Your task to perform on an android device: open app "Adobe Express: Graphic Design" (install if not already installed) Image 0: 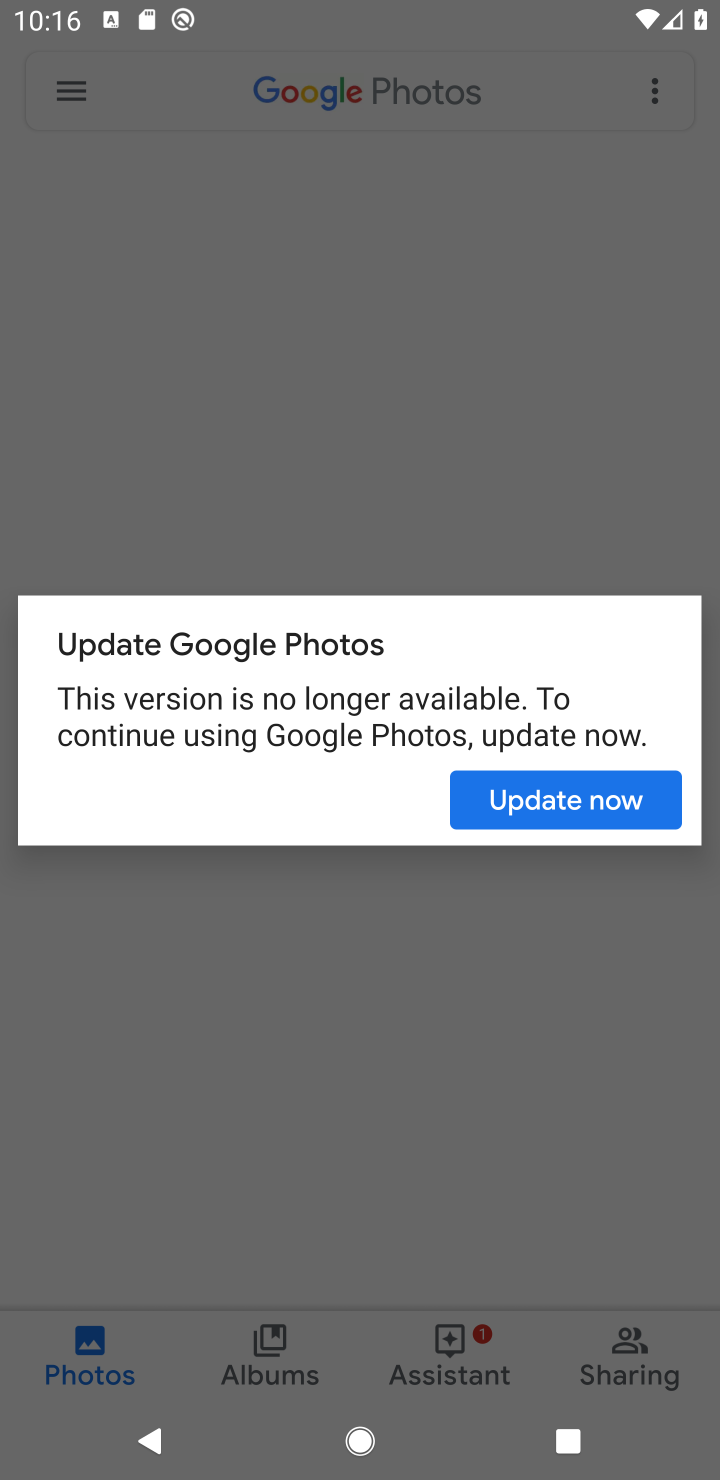
Step 0: press back button
Your task to perform on an android device: open app "Adobe Express: Graphic Design" (install if not already installed) Image 1: 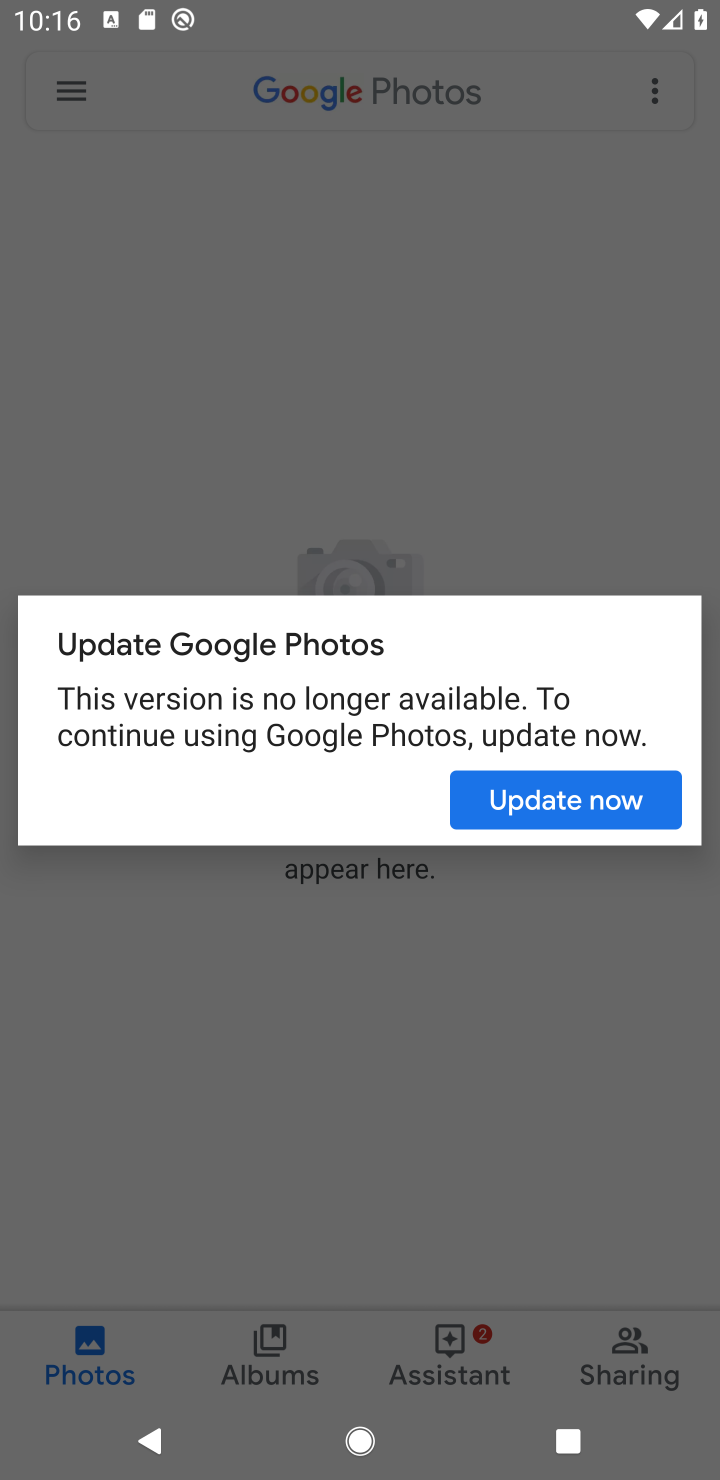
Step 1: press back button
Your task to perform on an android device: open app "Adobe Express: Graphic Design" (install if not already installed) Image 2: 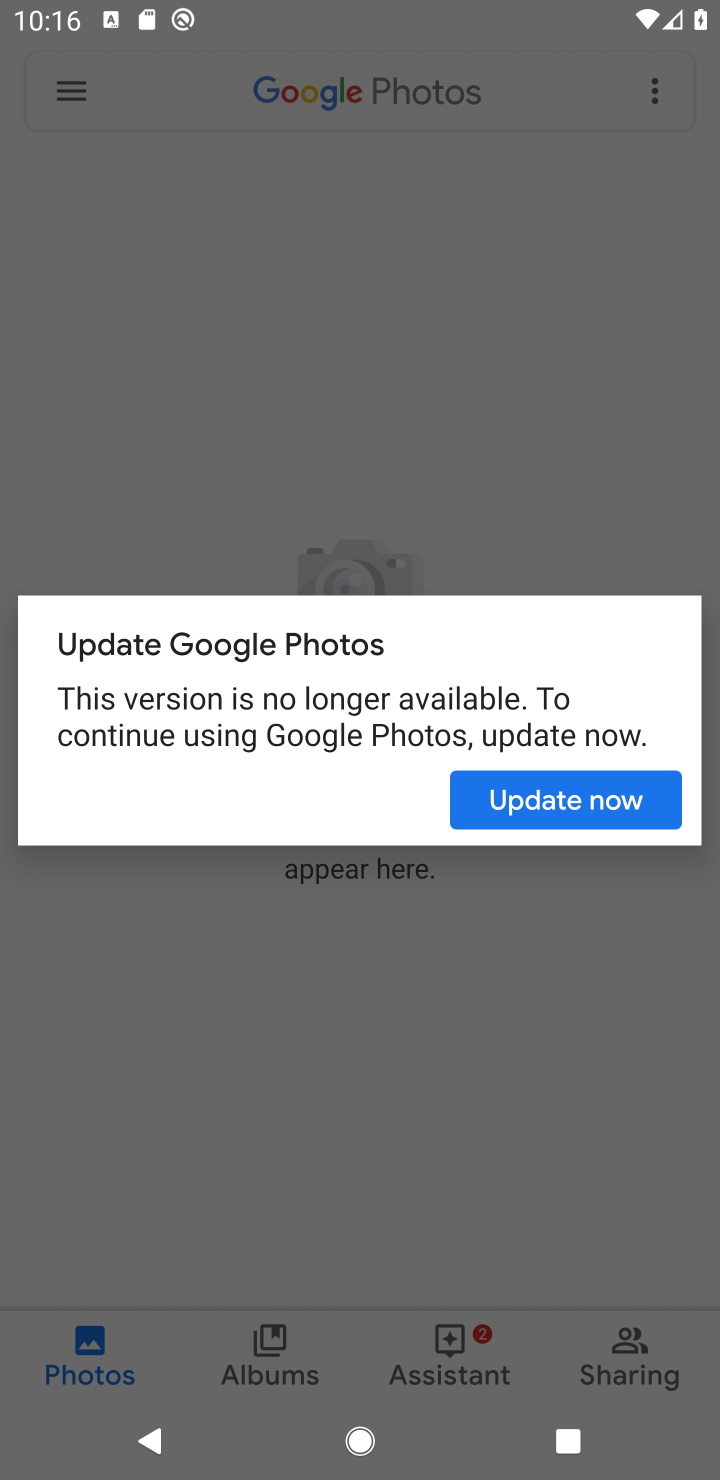
Step 2: press home button
Your task to perform on an android device: open app "Adobe Express: Graphic Design" (install if not already installed) Image 3: 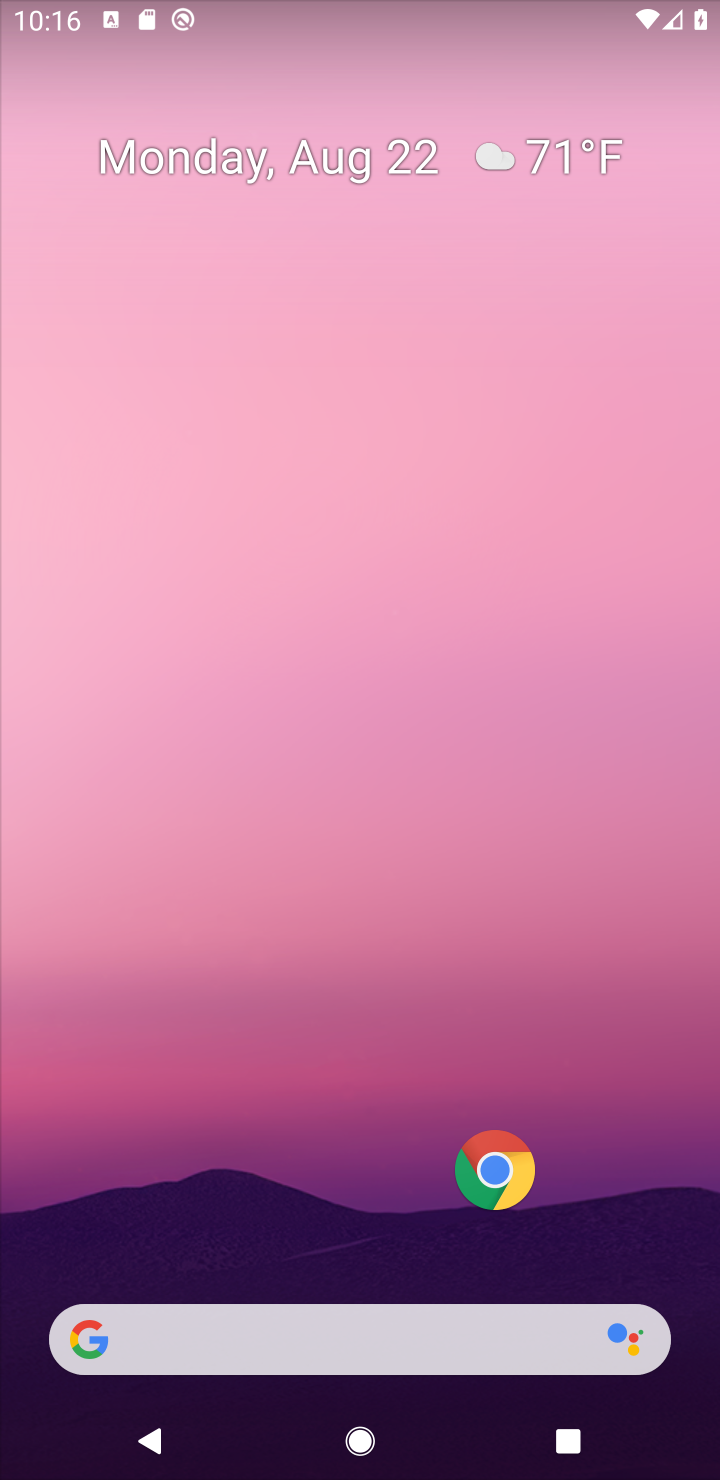
Step 3: drag from (375, 801) to (474, 25)
Your task to perform on an android device: open app "Adobe Express: Graphic Design" (install if not already installed) Image 4: 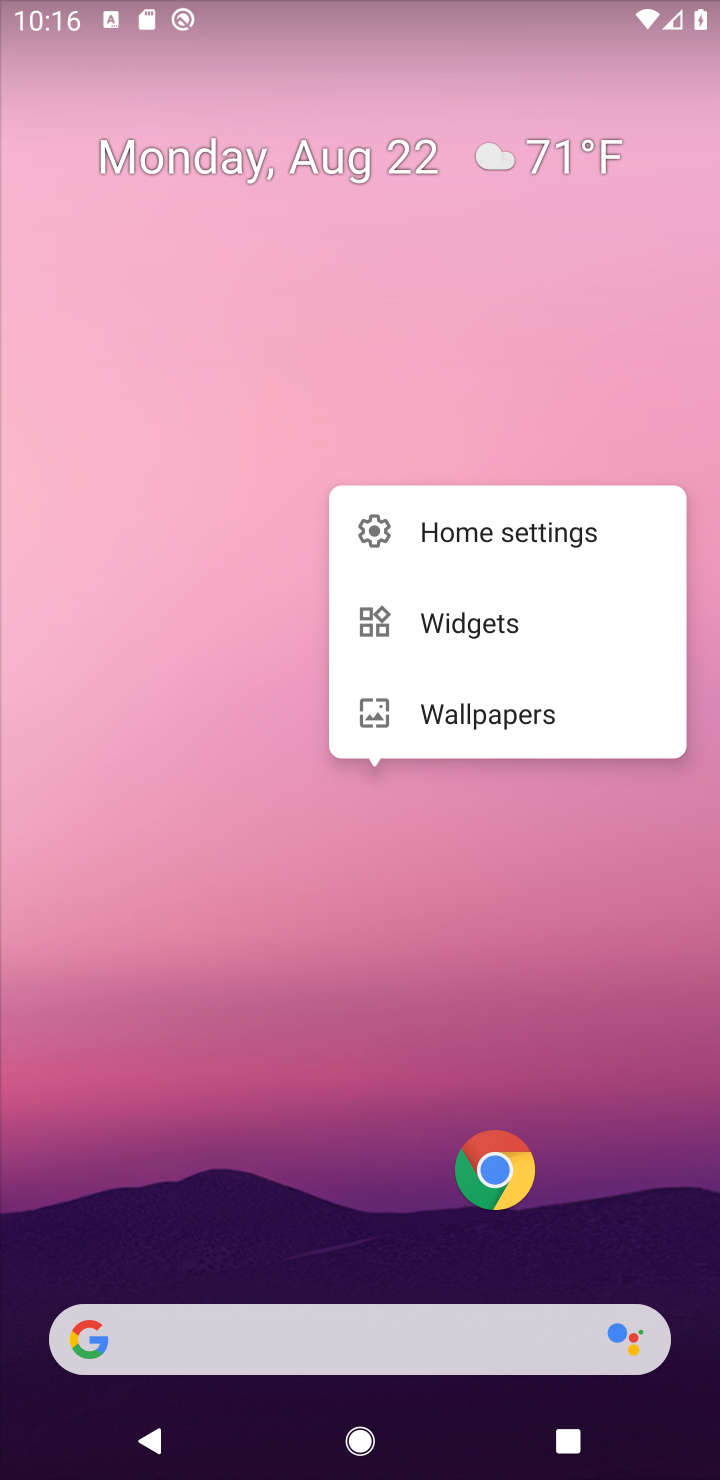
Step 4: click (217, 1167)
Your task to perform on an android device: open app "Adobe Express: Graphic Design" (install if not already installed) Image 5: 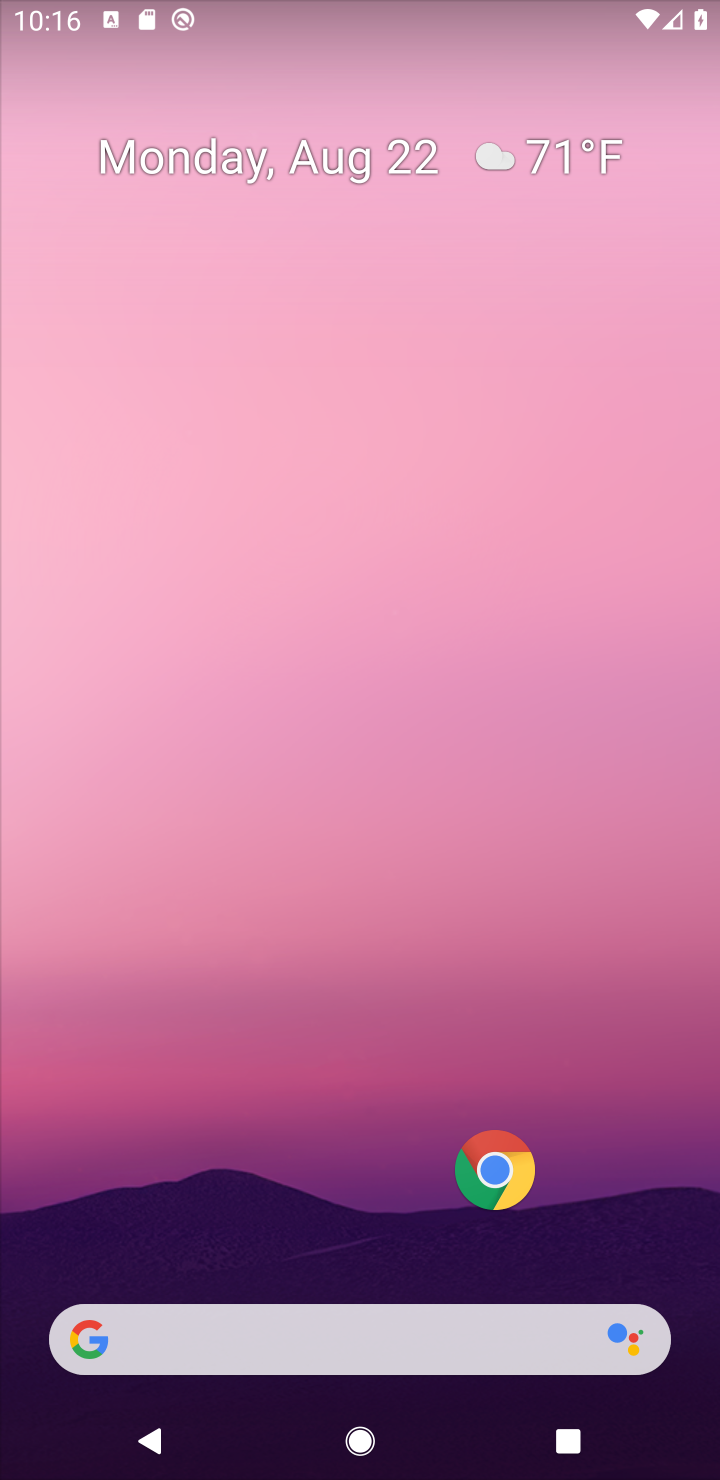
Step 5: drag from (238, 1229) to (481, 2)
Your task to perform on an android device: open app "Adobe Express: Graphic Design" (install if not already installed) Image 6: 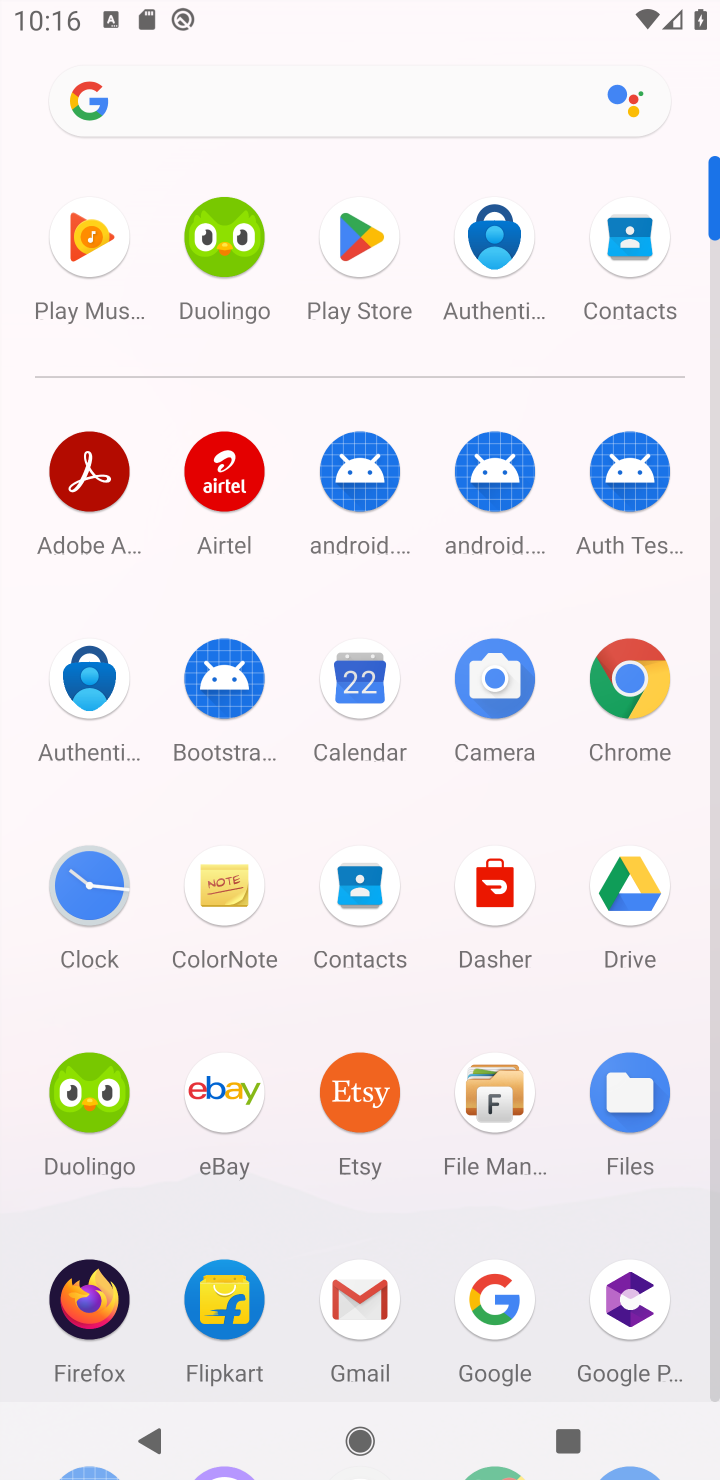
Step 6: click (354, 237)
Your task to perform on an android device: open app "Adobe Express: Graphic Design" (install if not already installed) Image 7: 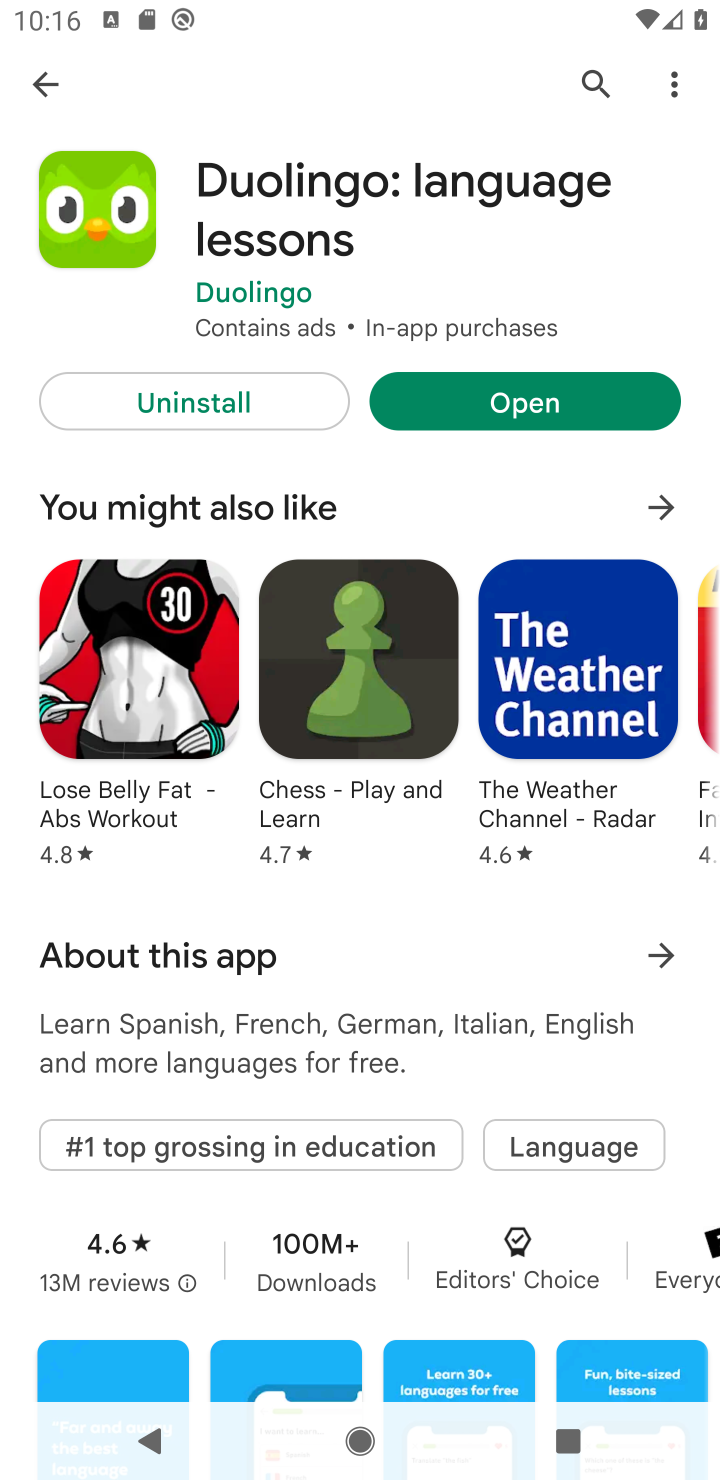
Step 7: click (589, 81)
Your task to perform on an android device: open app "Adobe Express: Graphic Design" (install if not already installed) Image 8: 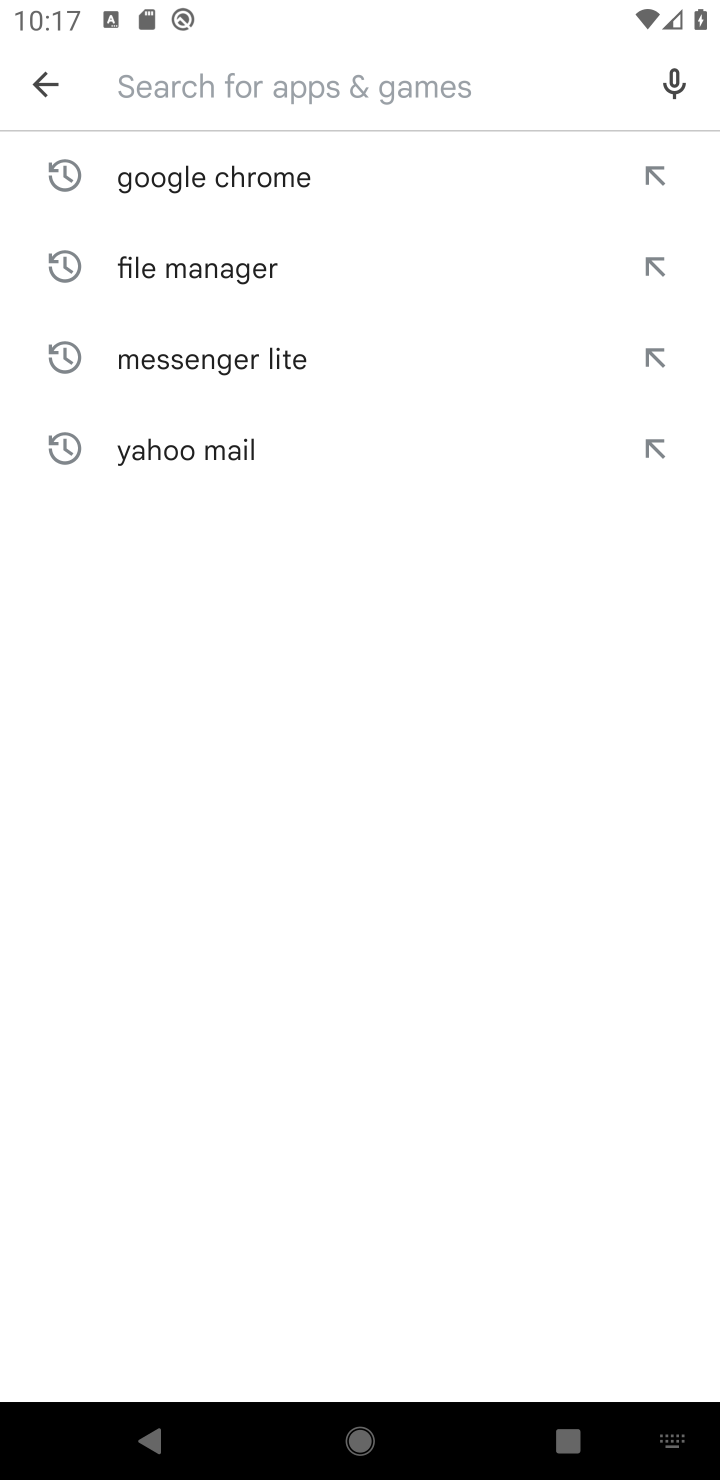
Step 8: click (305, 101)
Your task to perform on an android device: open app "Adobe Express: Graphic Design" (install if not already installed) Image 9: 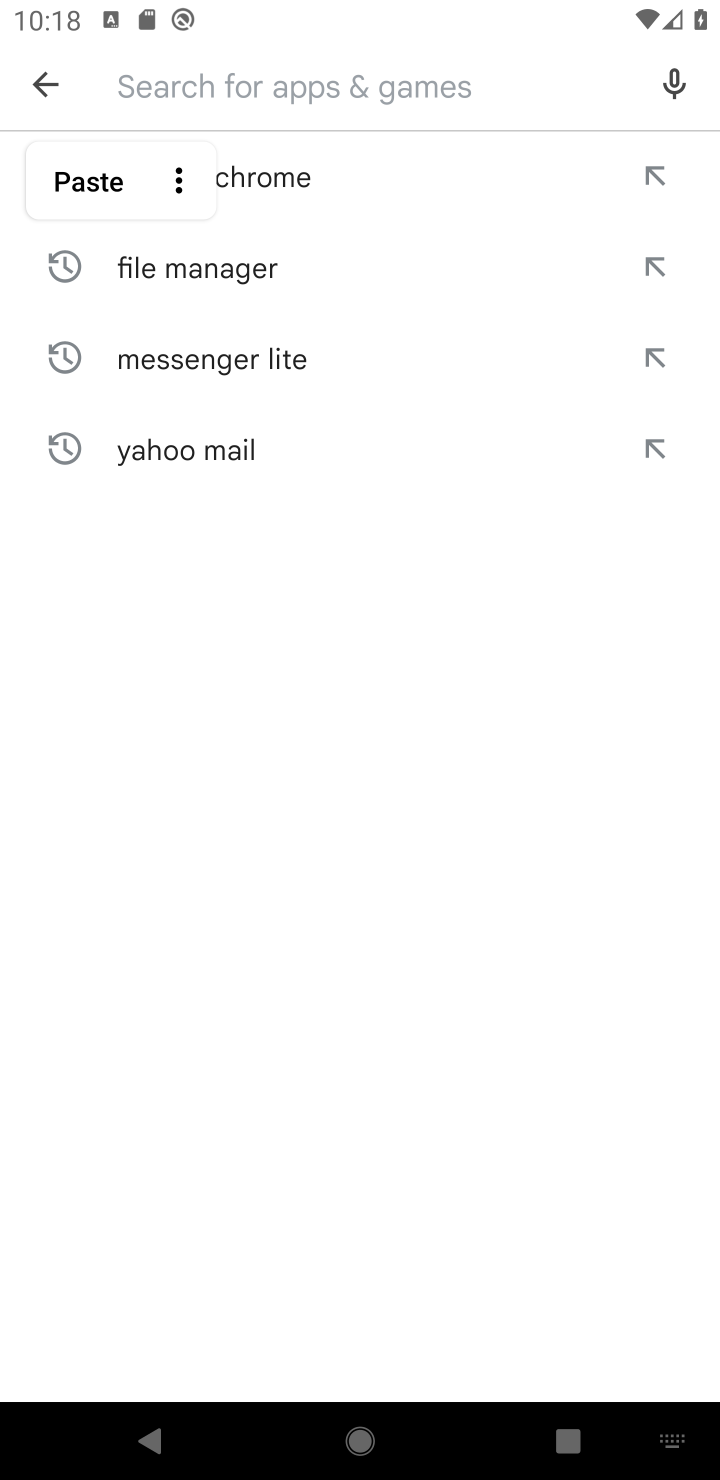
Step 9: click (222, 81)
Your task to perform on an android device: open app "Adobe Express: Graphic Design" (install if not already installed) Image 10: 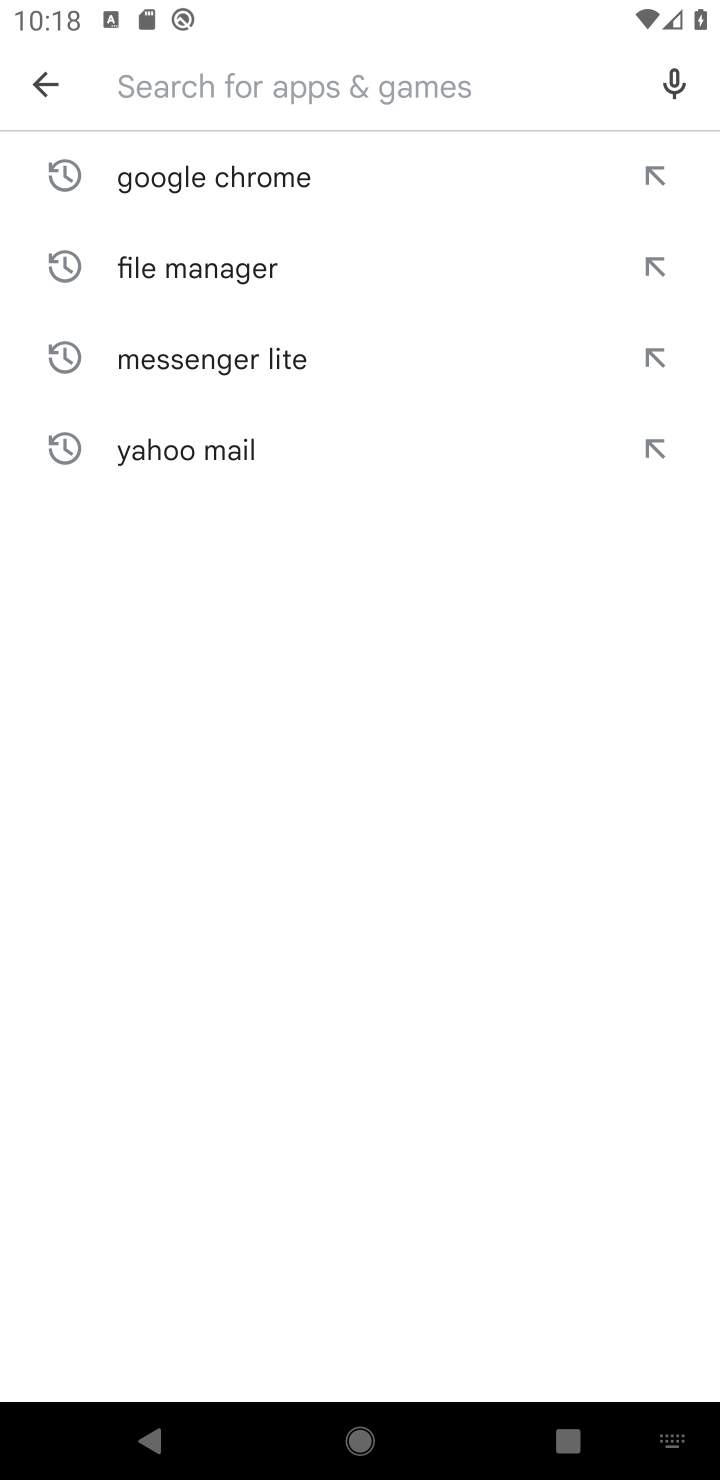
Step 10: type "Adobe Express: Graphic Design"
Your task to perform on an android device: open app "Adobe Express: Graphic Design" (install if not already installed) Image 11: 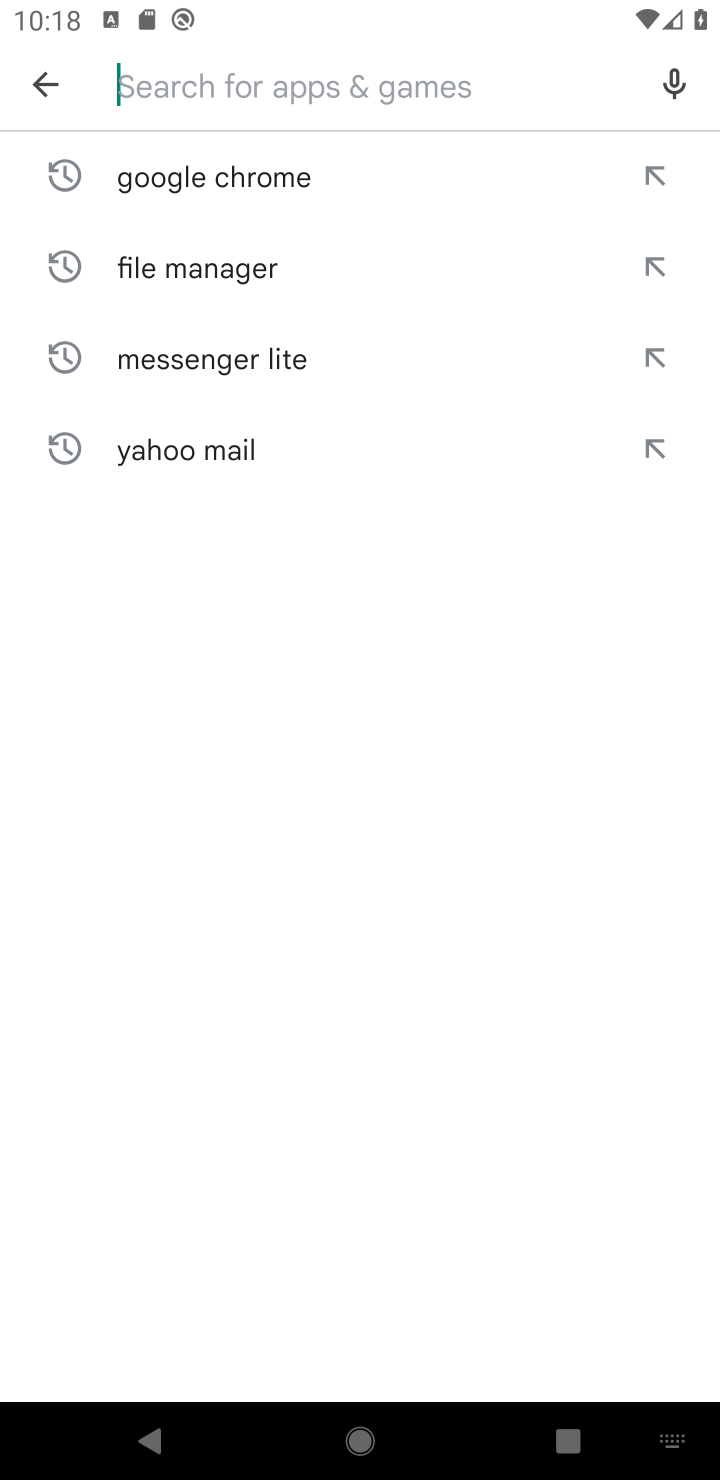
Step 11: click (260, 971)
Your task to perform on an android device: open app "Adobe Express: Graphic Design" (install if not already installed) Image 12: 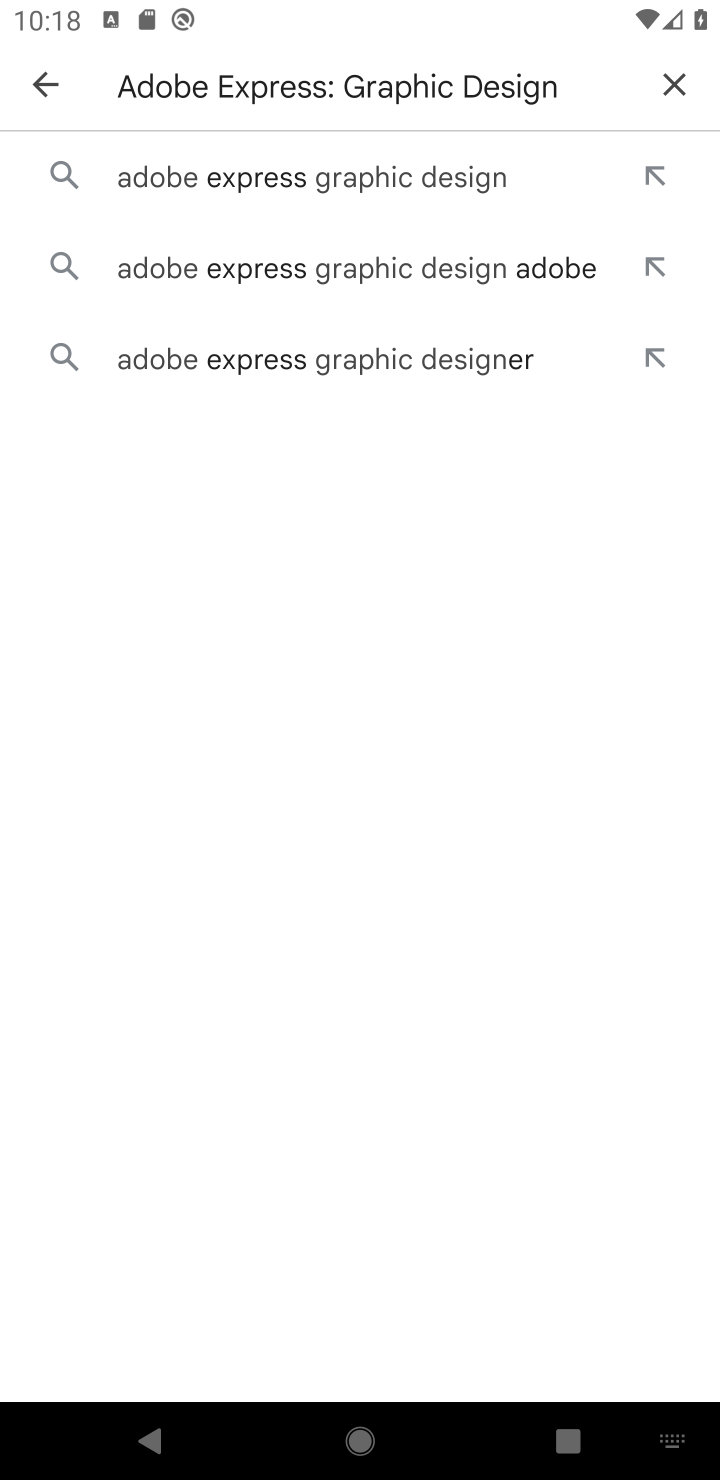
Step 12: click (277, 189)
Your task to perform on an android device: open app "Adobe Express: Graphic Design" (install if not already installed) Image 13: 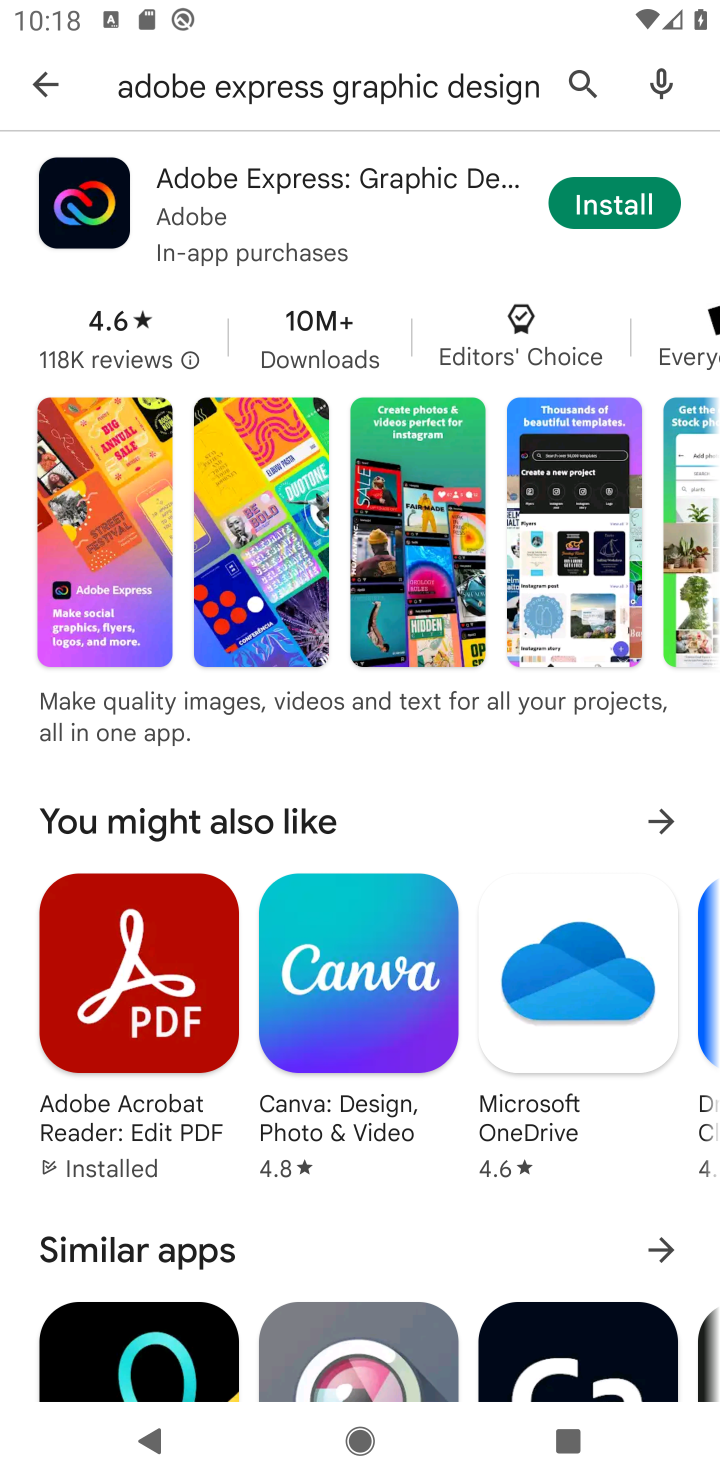
Step 13: click (602, 206)
Your task to perform on an android device: open app "Adobe Express: Graphic Design" (install if not already installed) Image 14: 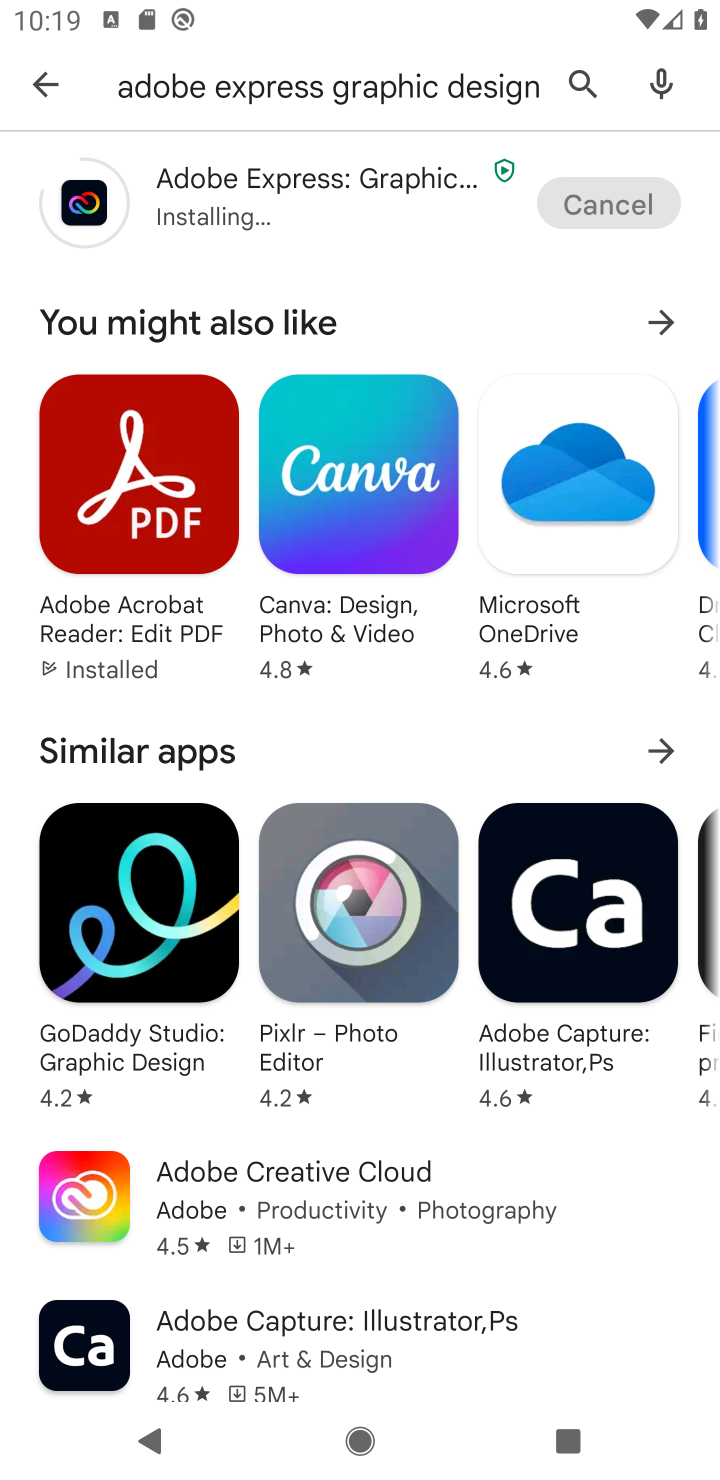
Step 14: click (372, 191)
Your task to perform on an android device: open app "Adobe Express: Graphic Design" (install if not already installed) Image 15: 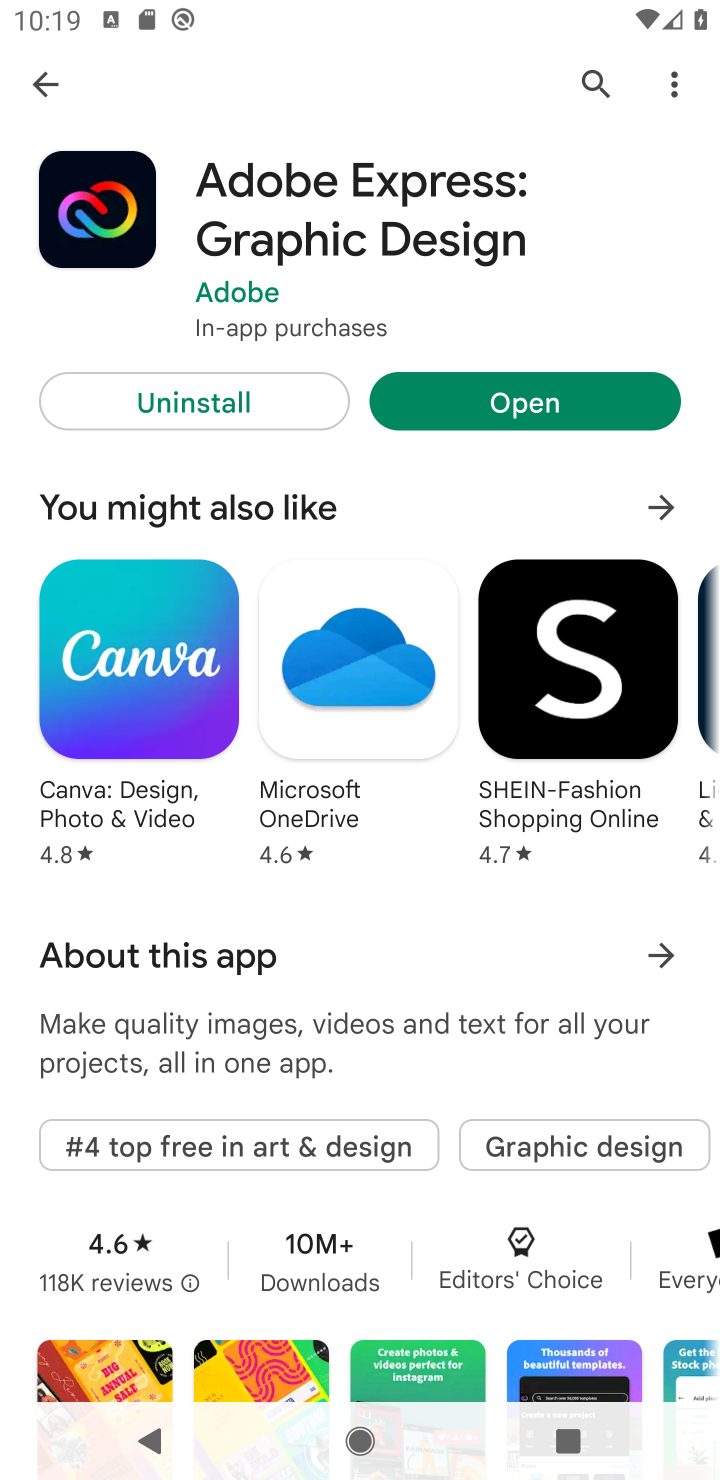
Step 15: click (558, 391)
Your task to perform on an android device: open app "Adobe Express: Graphic Design" (install if not already installed) Image 16: 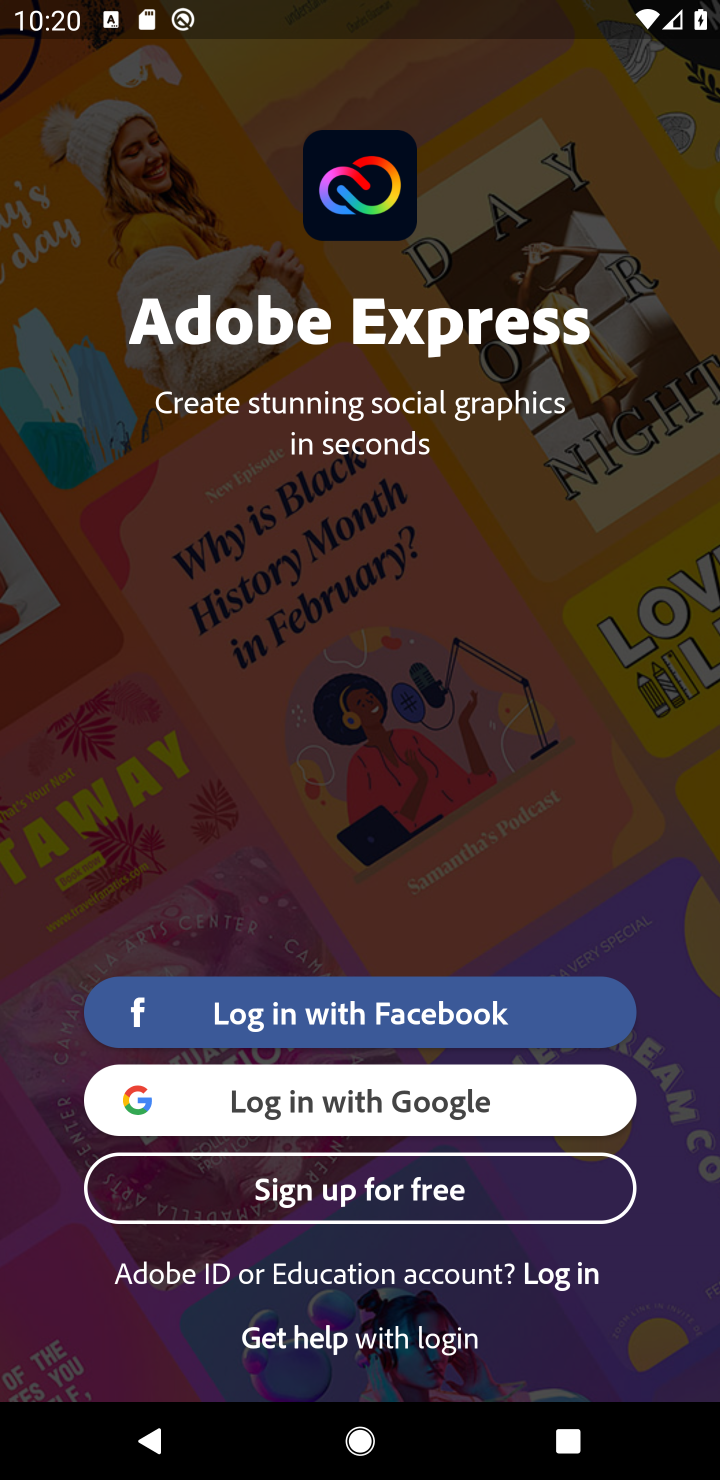
Step 16: task complete